Your task to perform on an android device: Check out the best rated 4k TV on Best Buy. Image 0: 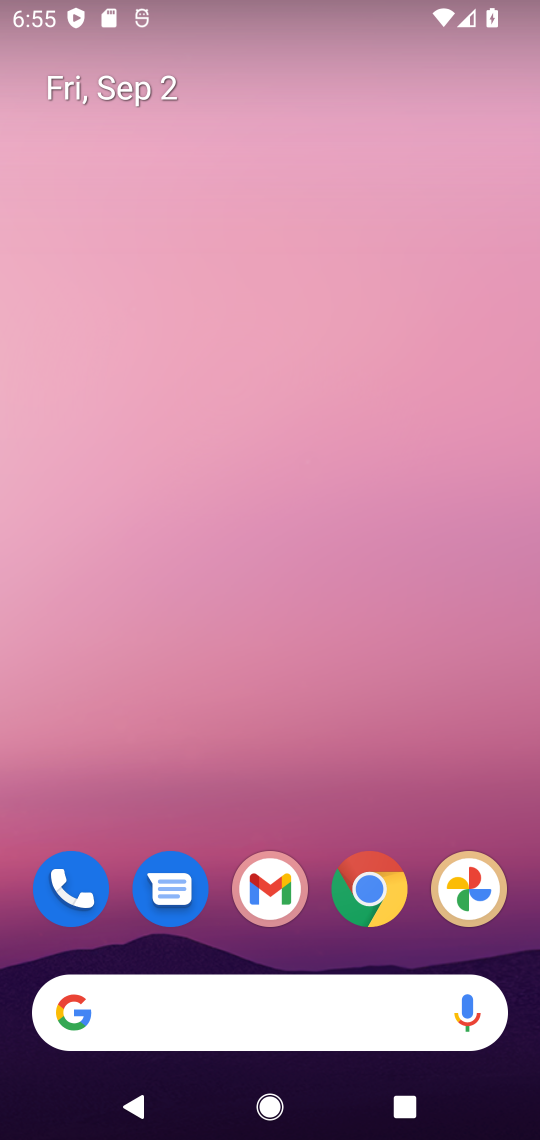
Step 0: click (265, 993)
Your task to perform on an android device: Check out the best rated 4k TV on Best Buy. Image 1: 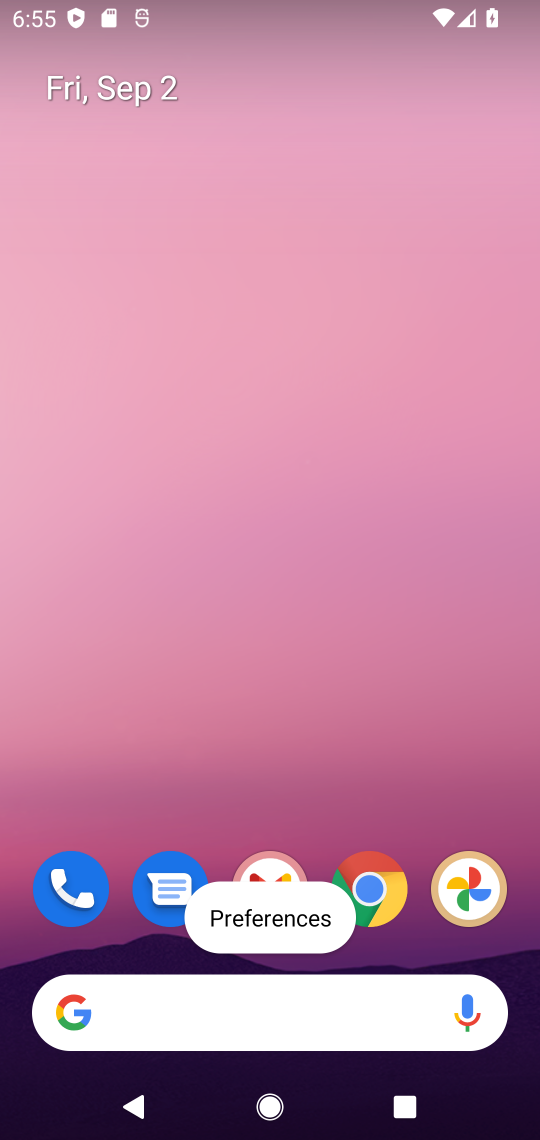
Step 1: click (237, 991)
Your task to perform on an android device: Check out the best rated 4k TV on Best Buy. Image 2: 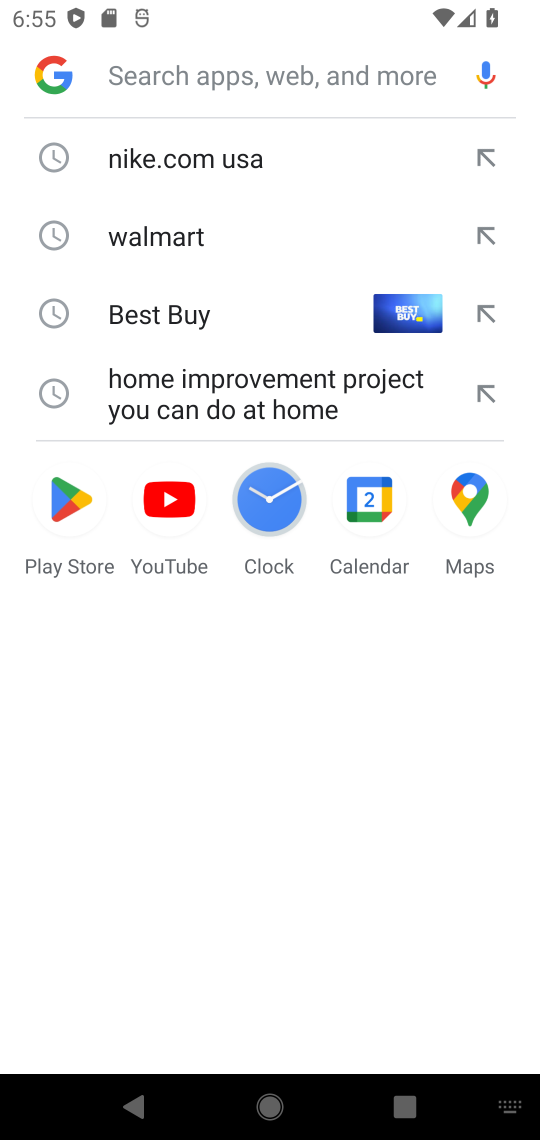
Step 2: click (283, 1016)
Your task to perform on an android device: Check out the best rated 4k TV on Best Buy. Image 3: 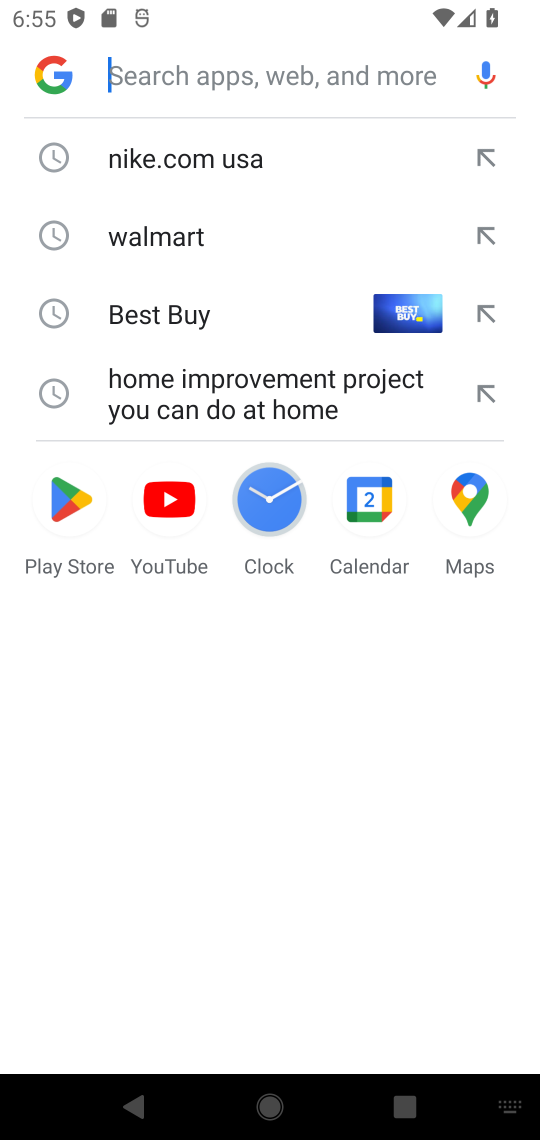
Step 3: type "Best Buy"
Your task to perform on an android device: Check out the best rated 4k TV on Best Buy. Image 4: 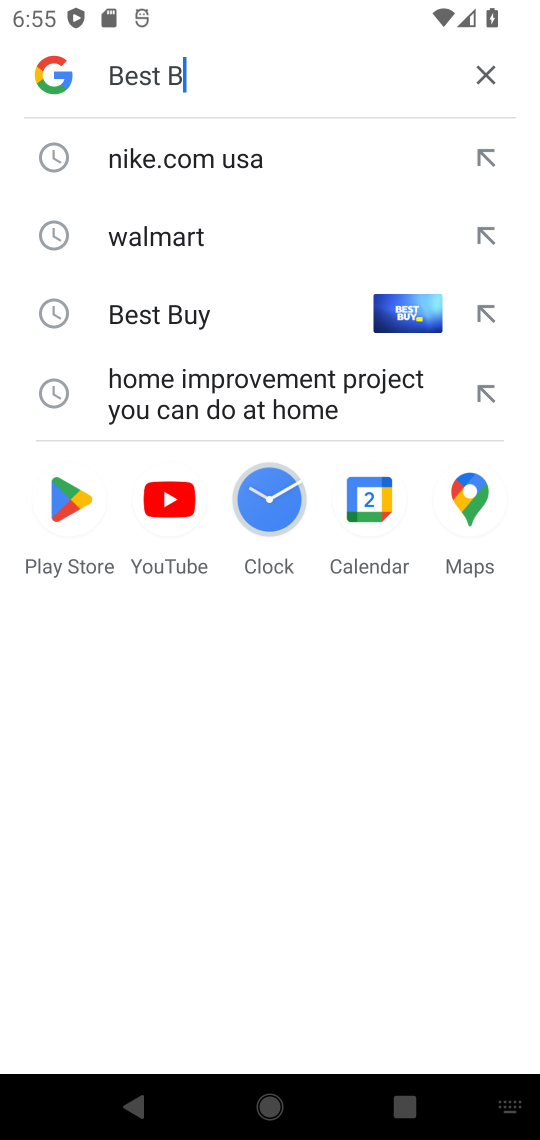
Step 4: type ""
Your task to perform on an android device: Check out the best rated 4k TV on Best Buy. Image 5: 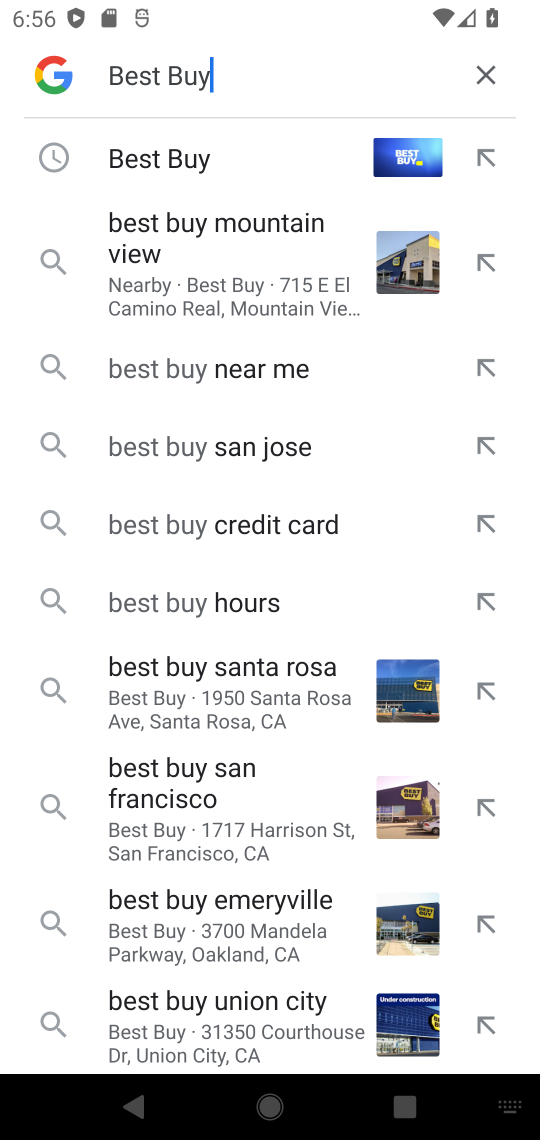
Step 5: click (219, 163)
Your task to perform on an android device: Check out the best rated 4k TV on Best Buy. Image 6: 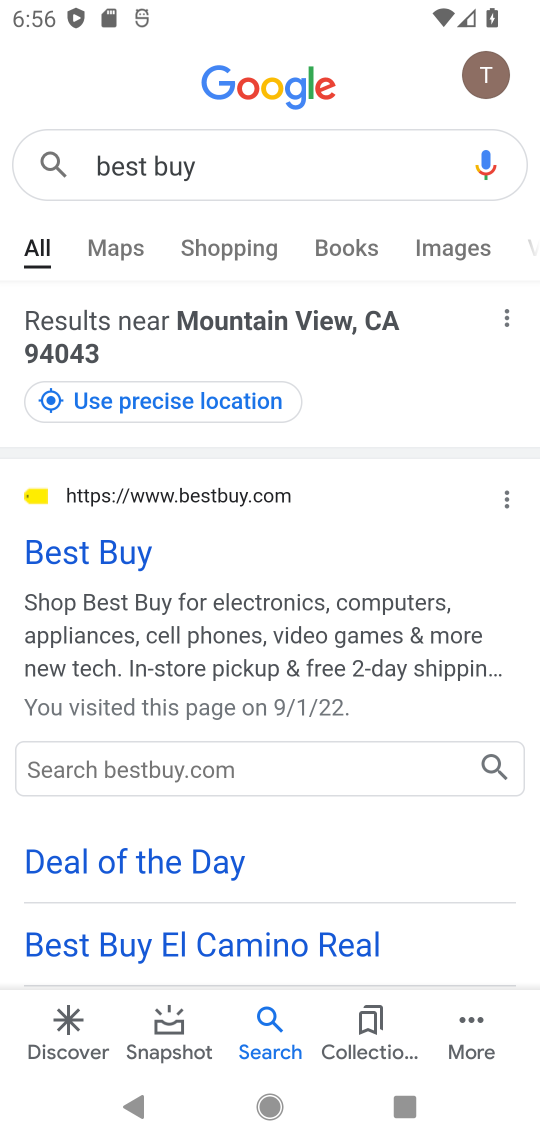
Step 6: click (120, 556)
Your task to perform on an android device: Check out the best rated 4k TV on Best Buy. Image 7: 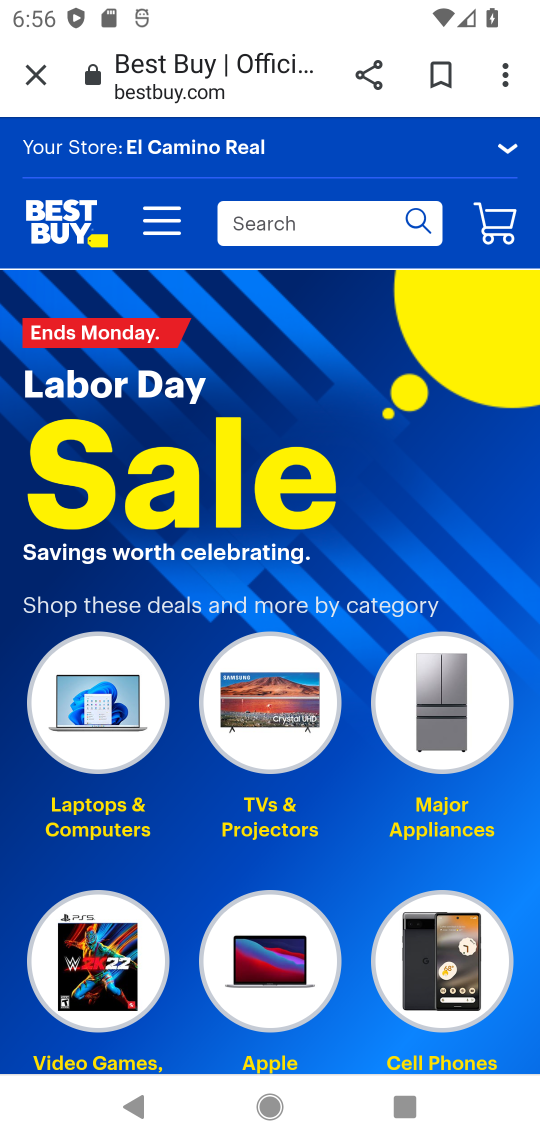
Step 7: click (274, 230)
Your task to perform on an android device: Check out the best rated 4k TV on Best Buy. Image 8: 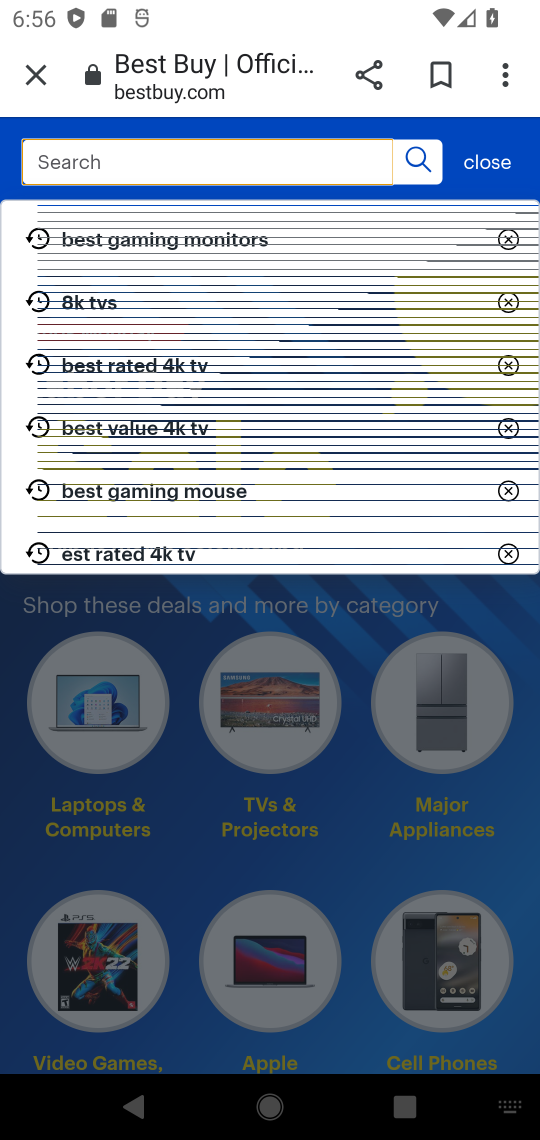
Step 8: type "4k TV"
Your task to perform on an android device: Check out the best rated 4k TV on Best Buy. Image 9: 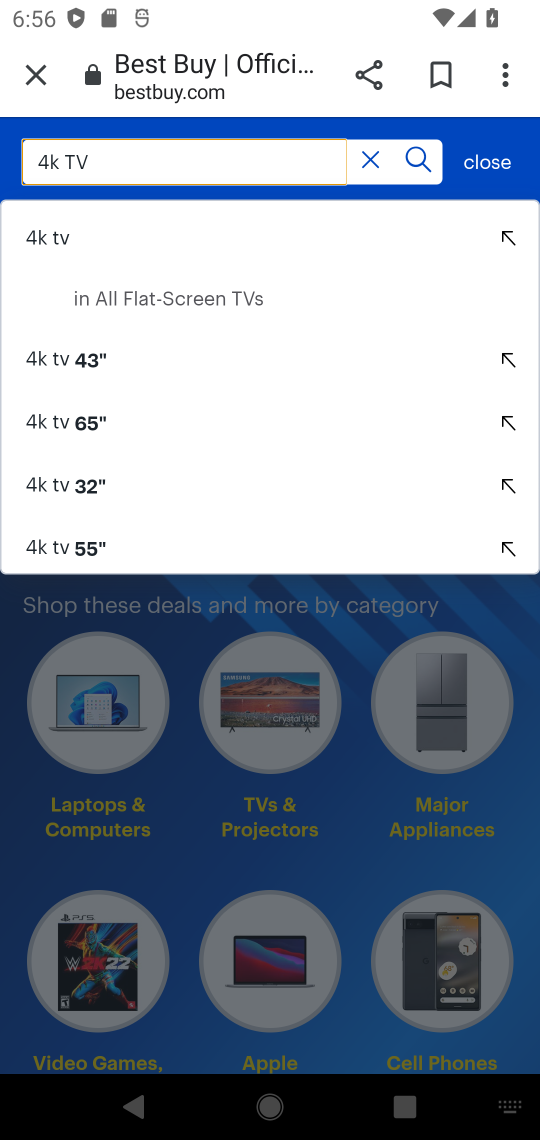
Step 9: click (36, 230)
Your task to perform on an android device: Check out the best rated 4k TV on Best Buy. Image 10: 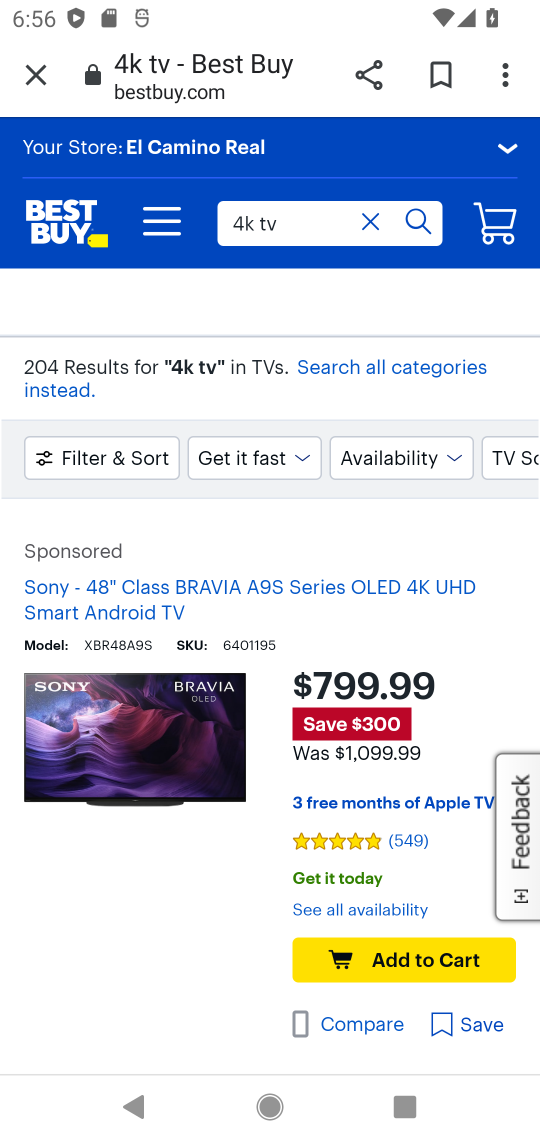
Step 10: drag from (192, 667) to (160, 287)
Your task to perform on an android device: Check out the best rated 4k TV on Best Buy. Image 11: 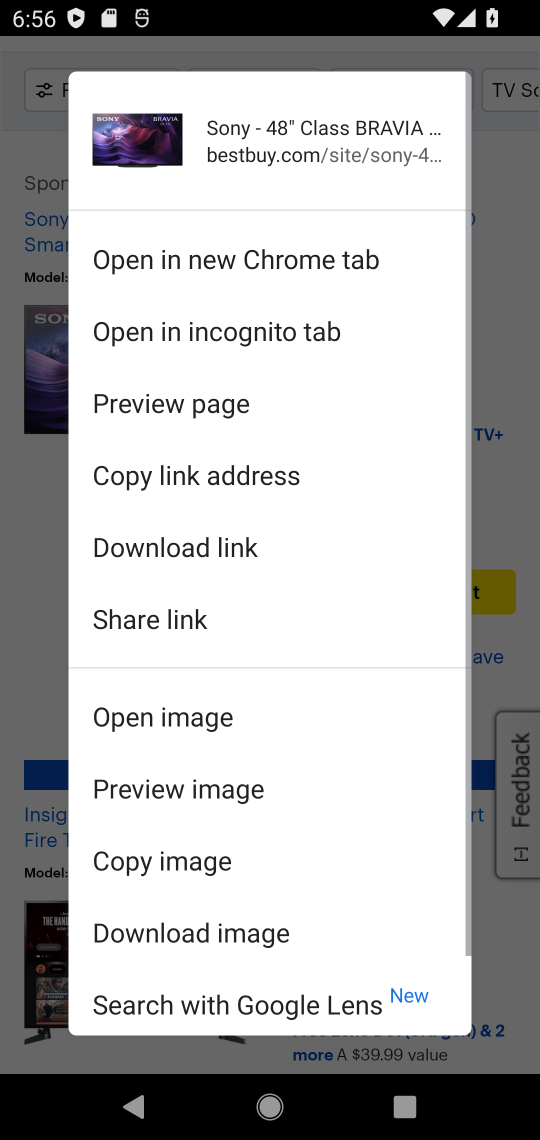
Step 11: click (503, 312)
Your task to perform on an android device: Check out the best rated 4k TV on Best Buy. Image 12: 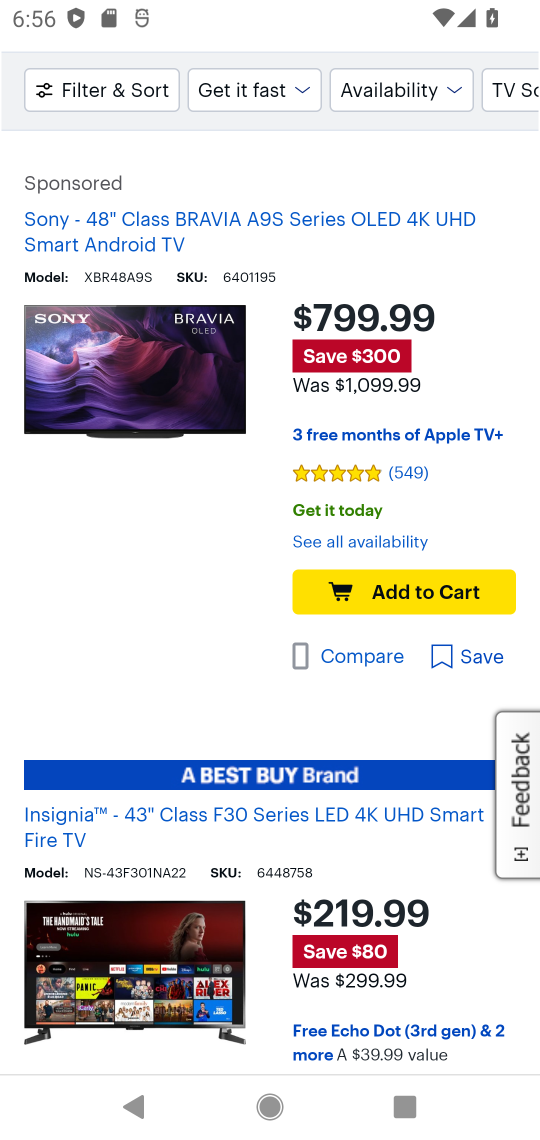
Step 12: task complete